Your task to perform on an android device: snooze an email in the gmail app Image 0: 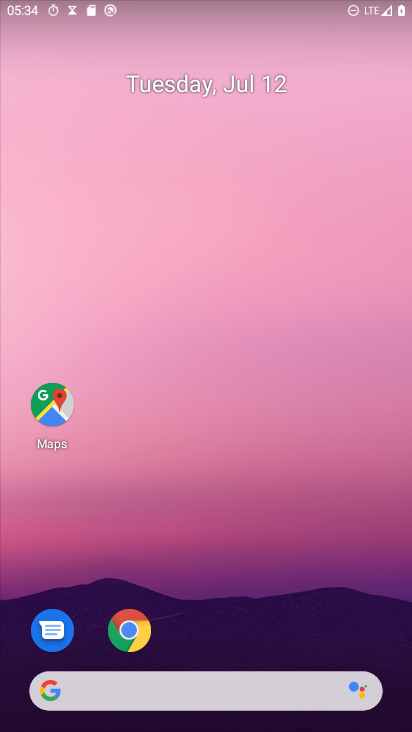
Step 0: drag from (255, 685) to (276, 58)
Your task to perform on an android device: snooze an email in the gmail app Image 1: 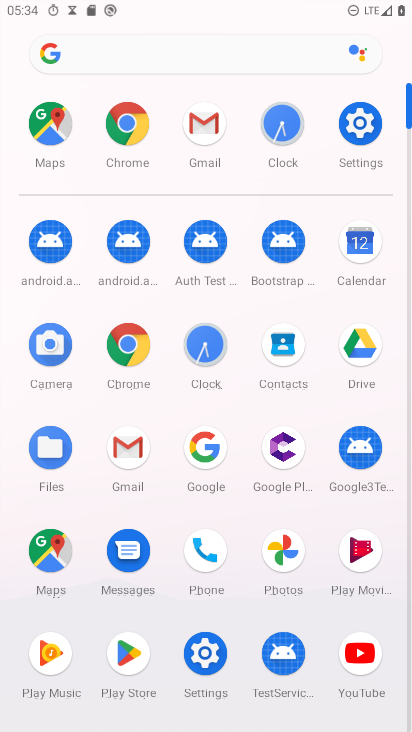
Step 1: click (129, 444)
Your task to perform on an android device: snooze an email in the gmail app Image 2: 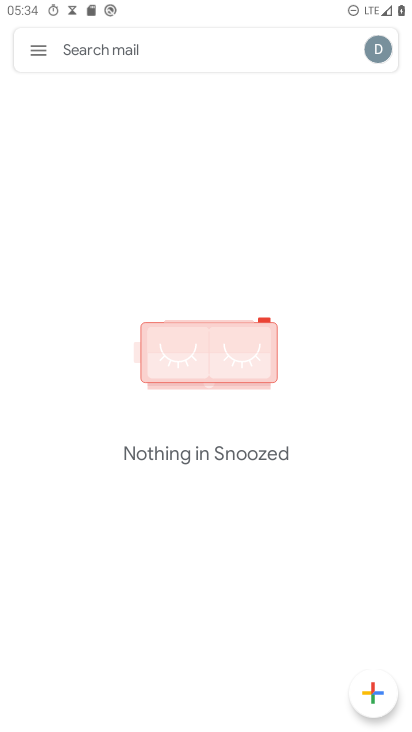
Step 2: task complete